Your task to perform on an android device: Check the news Image 0: 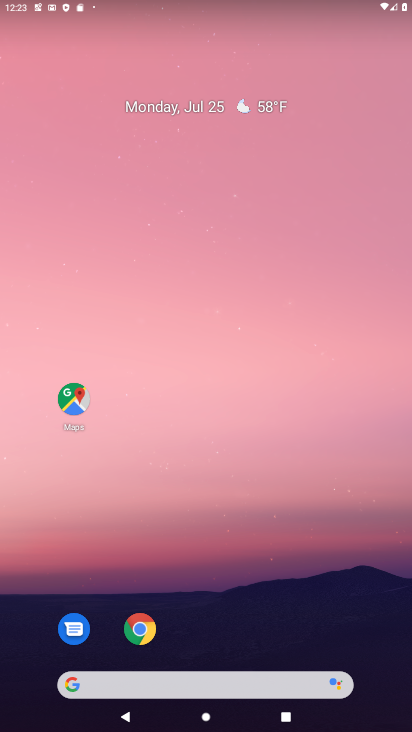
Step 0: drag from (220, 668) to (165, 2)
Your task to perform on an android device: Check the news Image 1: 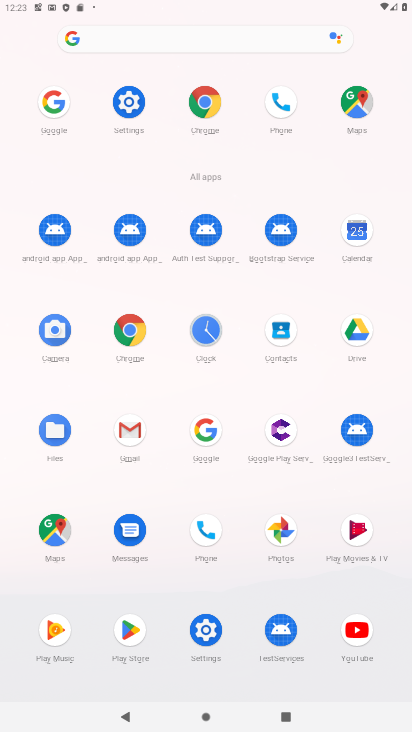
Step 1: click (210, 441)
Your task to perform on an android device: Check the news Image 2: 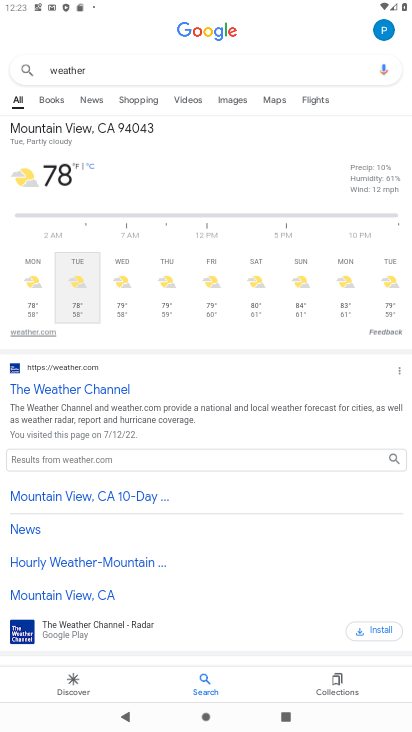
Step 2: click (80, 100)
Your task to perform on an android device: Check the news Image 3: 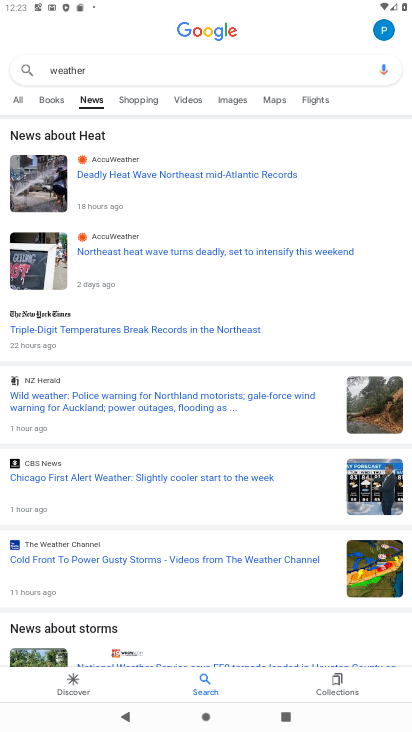
Step 3: task complete